Your task to perform on an android device: Go to settings Image 0: 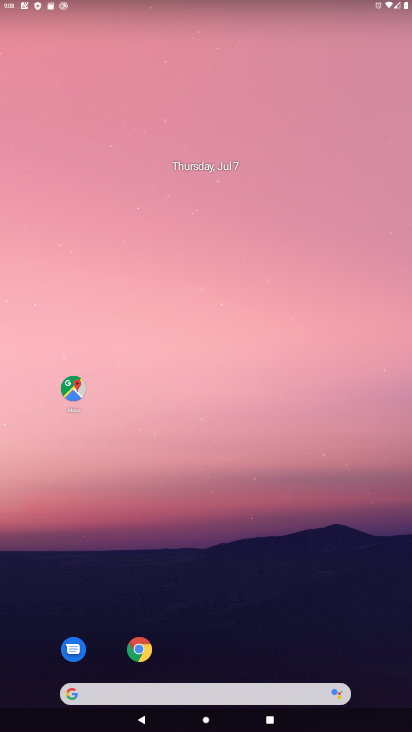
Step 0: drag from (300, 611) to (314, 256)
Your task to perform on an android device: Go to settings Image 1: 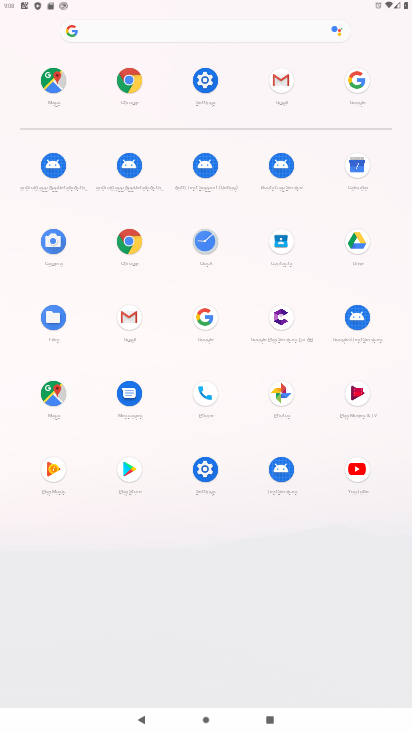
Step 1: click (199, 75)
Your task to perform on an android device: Go to settings Image 2: 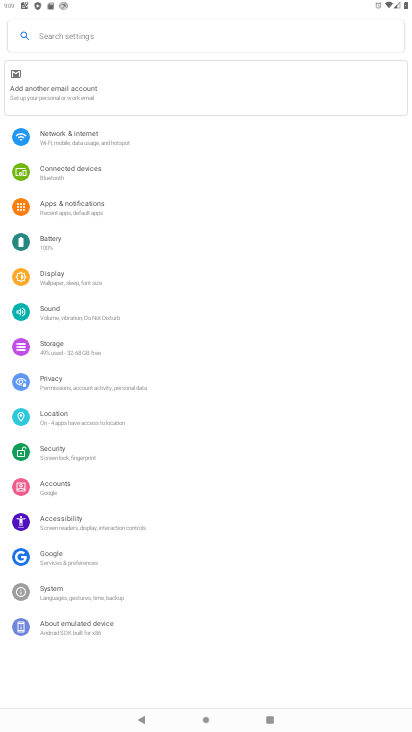
Step 2: task complete